Your task to perform on an android device: Go to Maps Image 0: 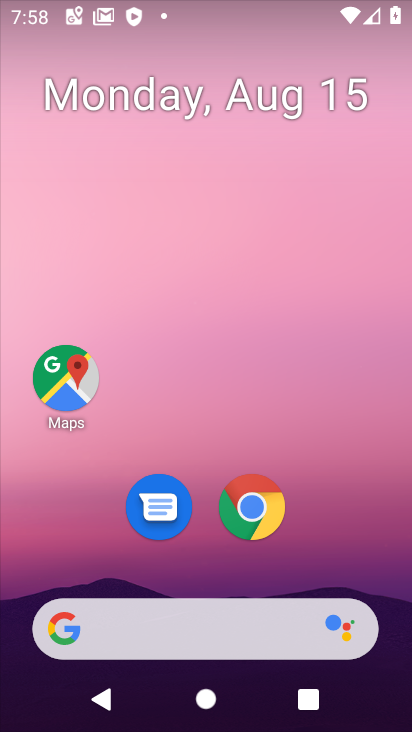
Step 0: click (87, 372)
Your task to perform on an android device: Go to Maps Image 1: 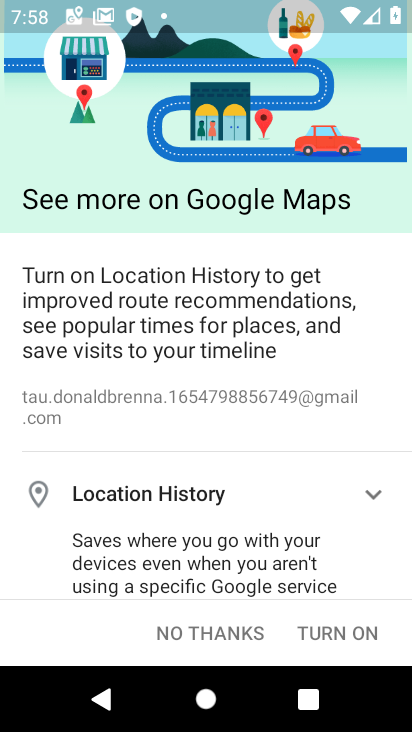
Step 1: click (209, 640)
Your task to perform on an android device: Go to Maps Image 2: 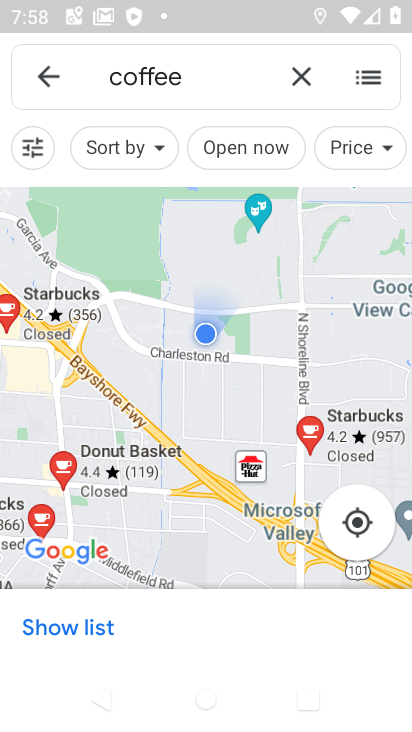
Step 2: task complete